Your task to perform on an android device: see creations saved in the google photos Image 0: 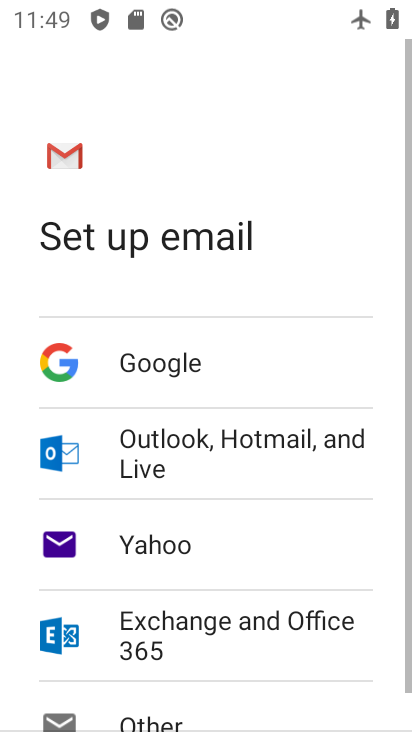
Step 0: press home button
Your task to perform on an android device: see creations saved in the google photos Image 1: 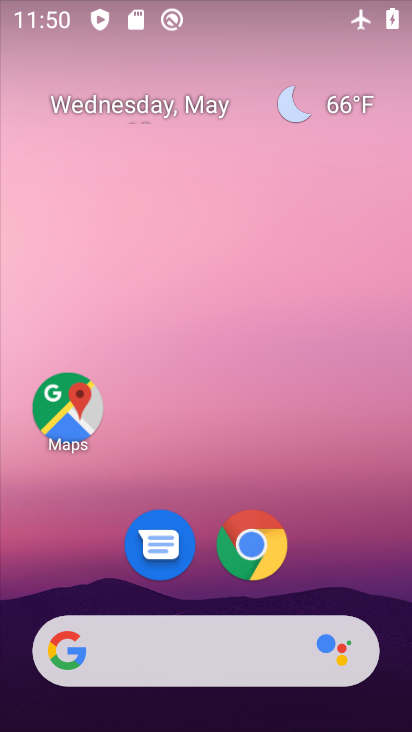
Step 1: drag from (173, 709) to (205, 53)
Your task to perform on an android device: see creations saved in the google photos Image 2: 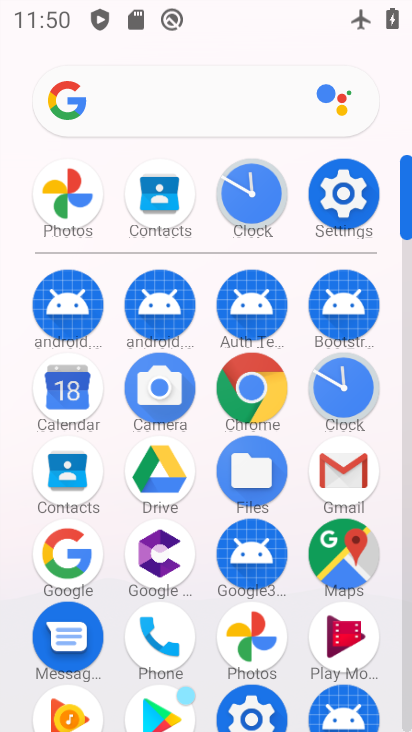
Step 2: click (79, 208)
Your task to perform on an android device: see creations saved in the google photos Image 3: 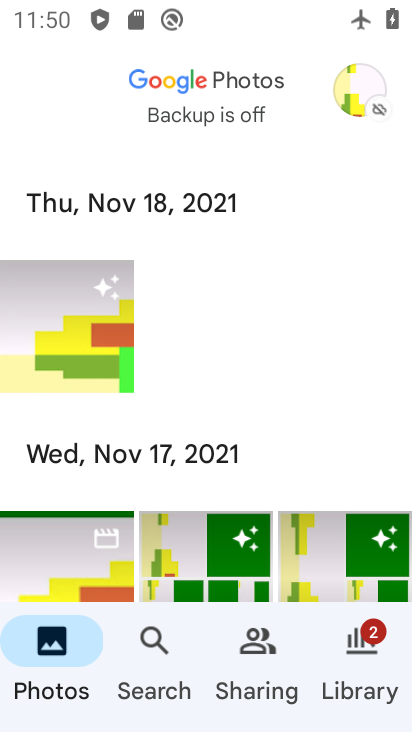
Step 3: click (150, 641)
Your task to perform on an android device: see creations saved in the google photos Image 4: 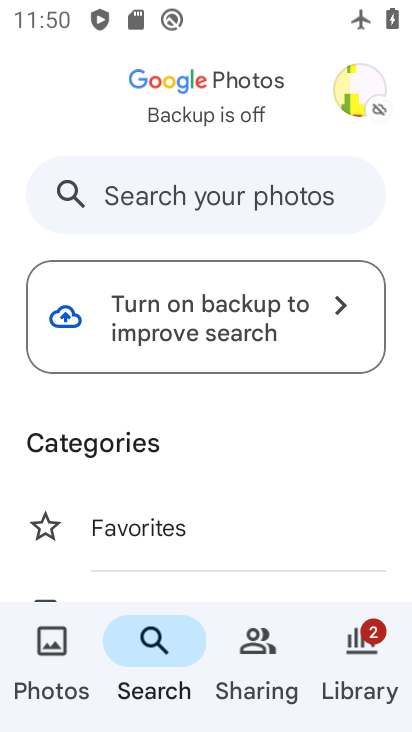
Step 4: drag from (263, 565) to (331, 103)
Your task to perform on an android device: see creations saved in the google photos Image 5: 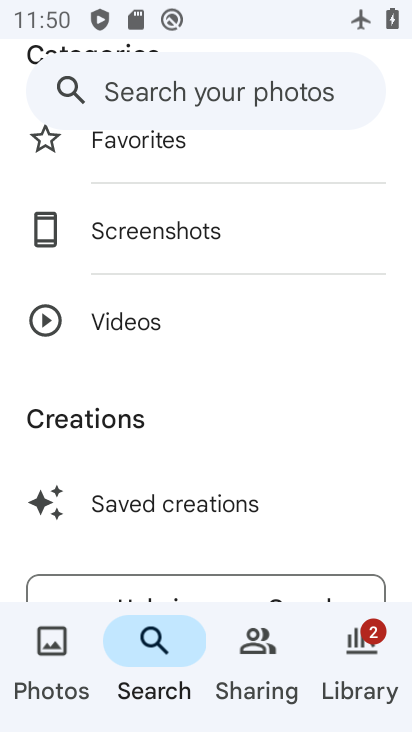
Step 5: click (193, 476)
Your task to perform on an android device: see creations saved in the google photos Image 6: 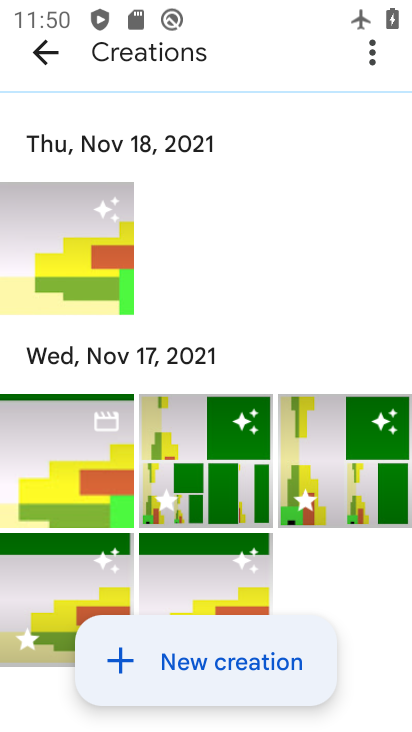
Step 6: task complete